Your task to perform on an android device: uninstall "Flipkart Online Shopping App" Image 0: 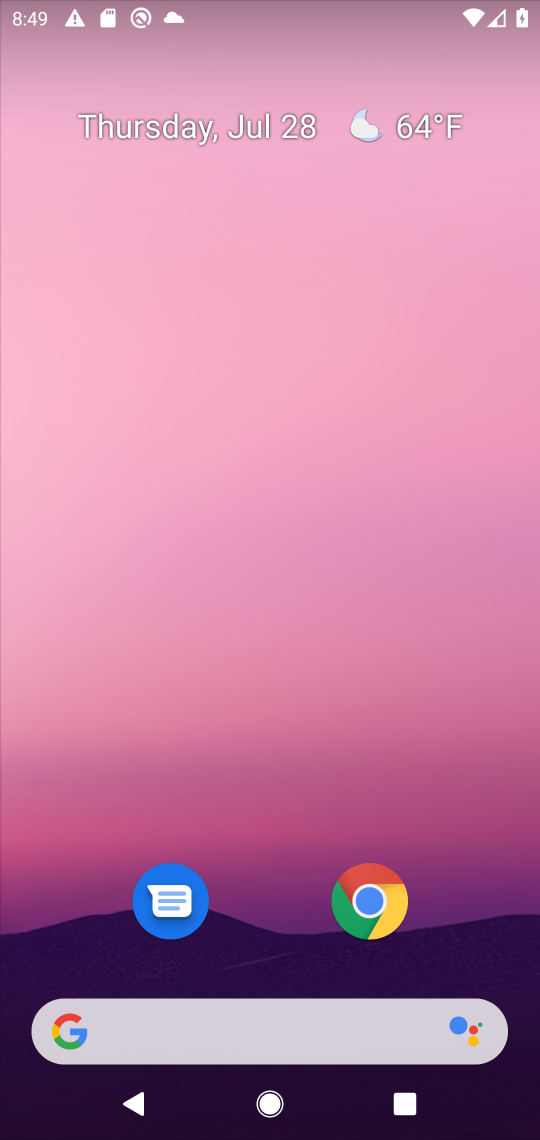
Step 0: drag from (504, 1093) to (464, 213)
Your task to perform on an android device: uninstall "Flipkart Online Shopping App" Image 1: 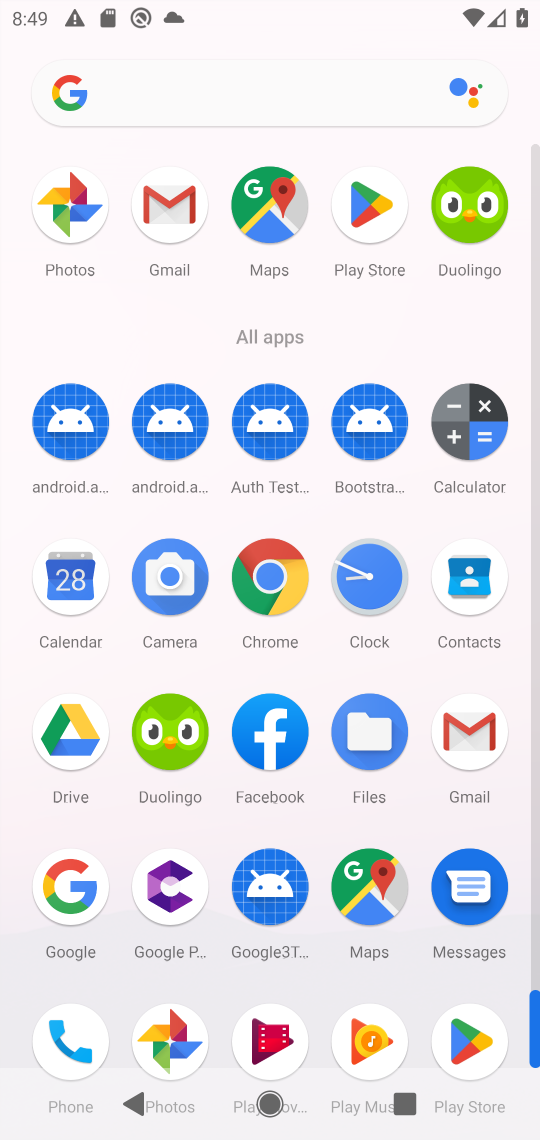
Step 1: drag from (315, 843) to (315, 373)
Your task to perform on an android device: uninstall "Flipkart Online Shopping App" Image 2: 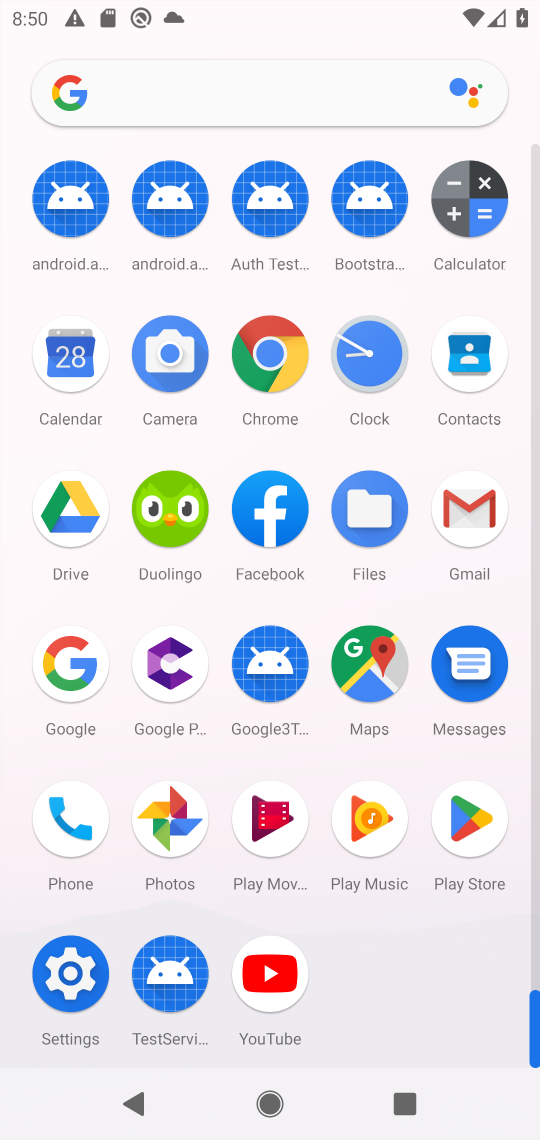
Step 2: click (443, 818)
Your task to perform on an android device: uninstall "Flipkart Online Shopping App" Image 3: 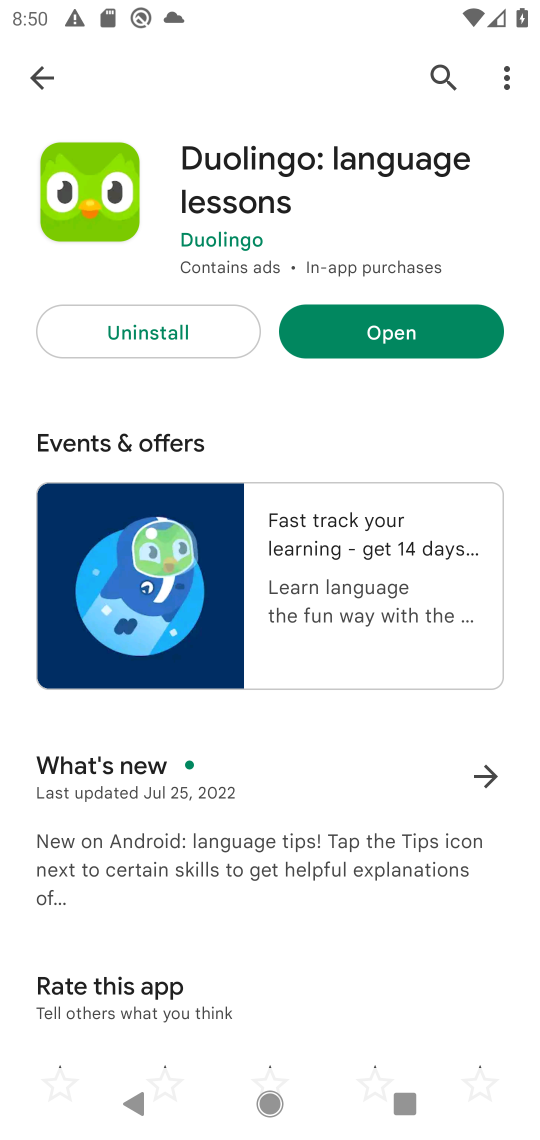
Step 3: click (438, 73)
Your task to perform on an android device: uninstall "Flipkart Online Shopping App" Image 4: 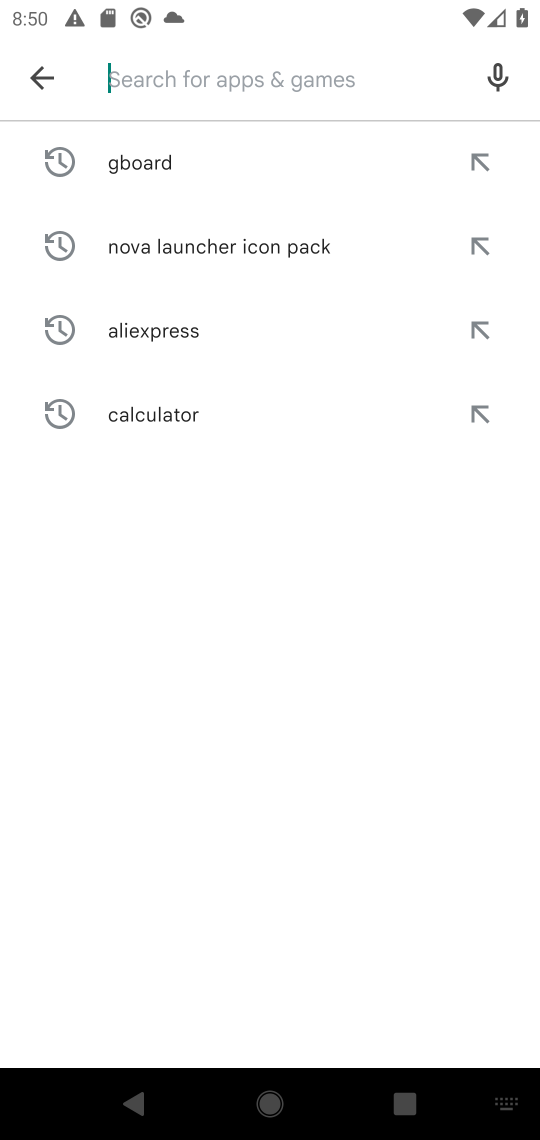
Step 4: type "Flipkart Online Shopping App"
Your task to perform on an android device: uninstall "Flipkart Online Shopping App" Image 5: 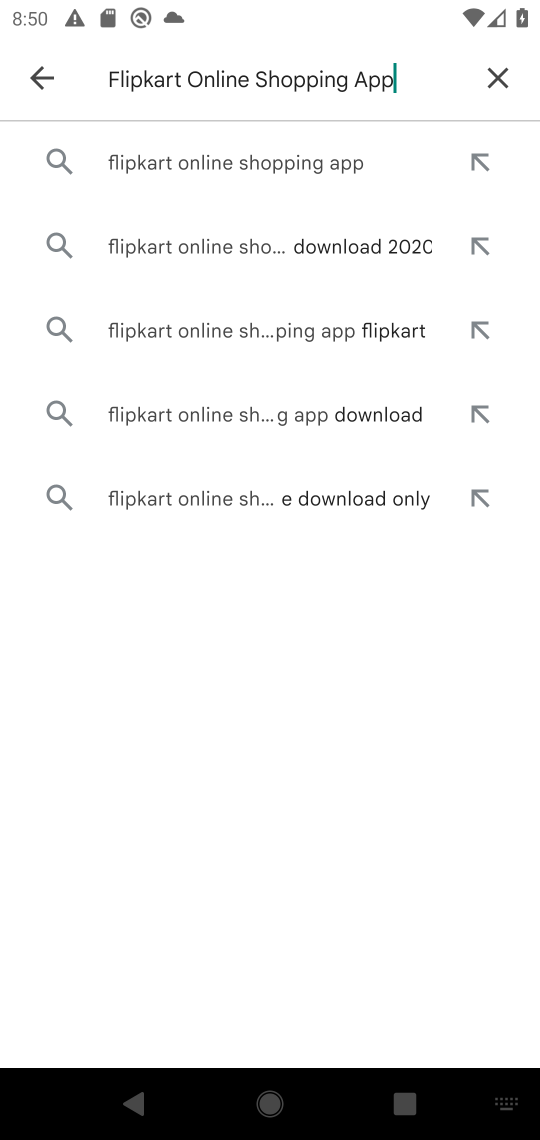
Step 5: click (203, 167)
Your task to perform on an android device: uninstall "Flipkart Online Shopping App" Image 6: 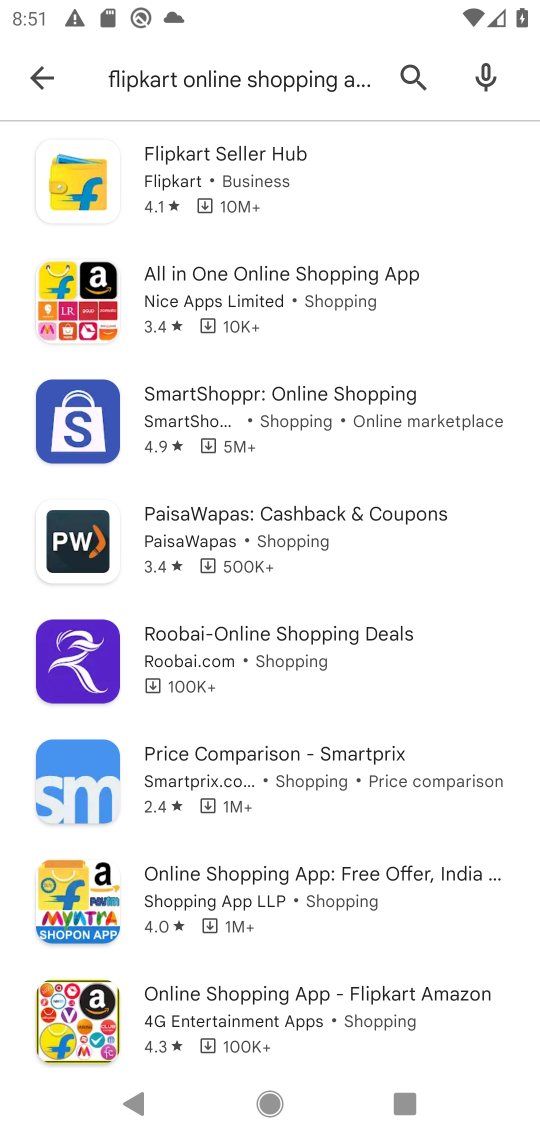
Step 6: task complete